Your task to perform on an android device: Is it going to rain this weekend? Image 0: 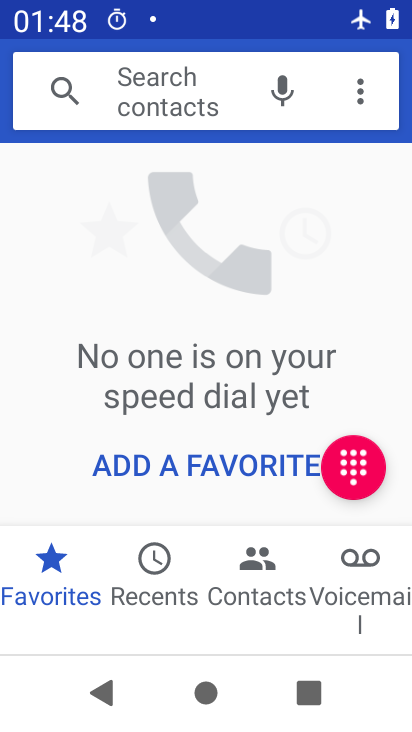
Step 0: press home button
Your task to perform on an android device: Is it going to rain this weekend? Image 1: 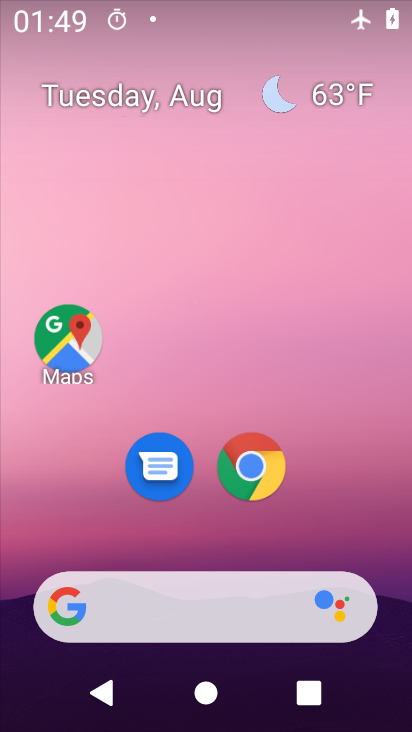
Step 1: click (217, 601)
Your task to perform on an android device: Is it going to rain this weekend? Image 2: 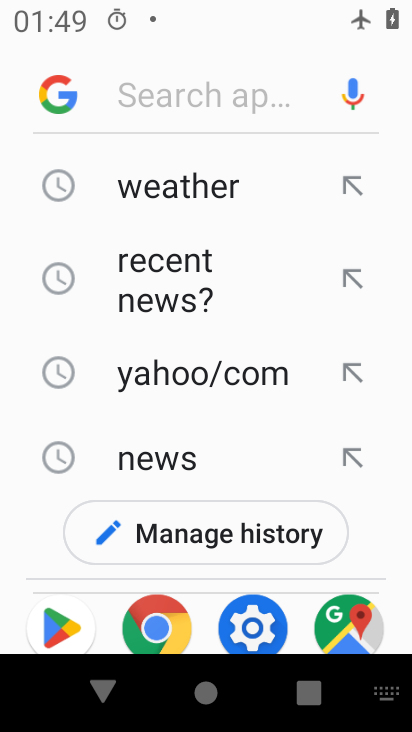
Step 2: click (235, 192)
Your task to perform on an android device: Is it going to rain this weekend? Image 3: 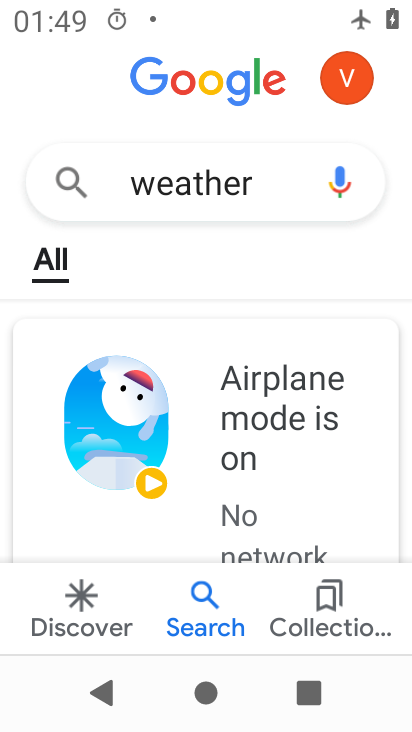
Step 3: task complete